Your task to perform on an android device: turn on javascript in the chrome app Image 0: 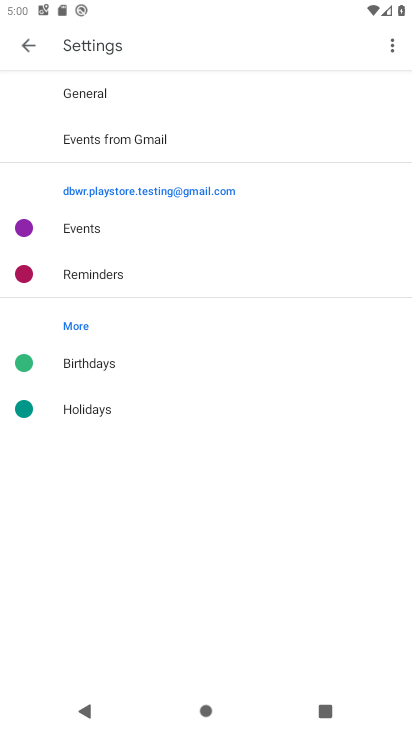
Step 0: press home button
Your task to perform on an android device: turn on javascript in the chrome app Image 1: 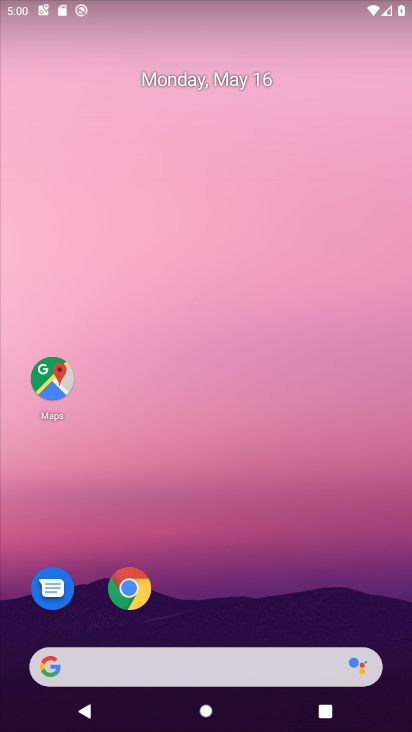
Step 1: click (132, 591)
Your task to perform on an android device: turn on javascript in the chrome app Image 2: 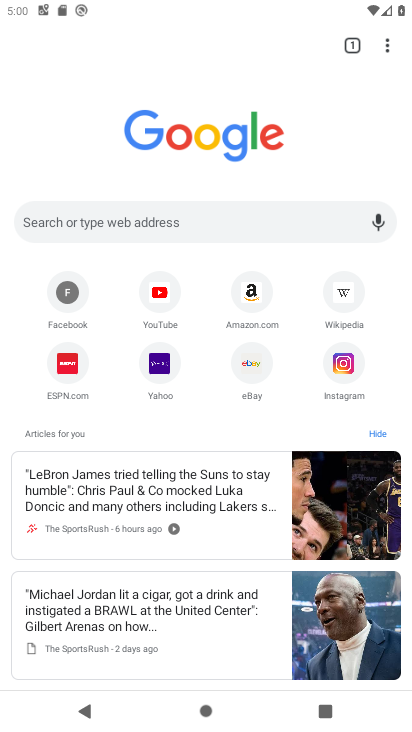
Step 2: click (383, 38)
Your task to perform on an android device: turn on javascript in the chrome app Image 3: 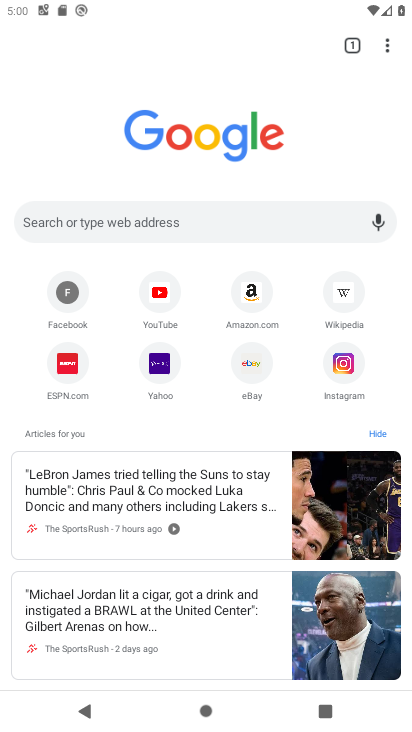
Step 3: click (380, 43)
Your task to perform on an android device: turn on javascript in the chrome app Image 4: 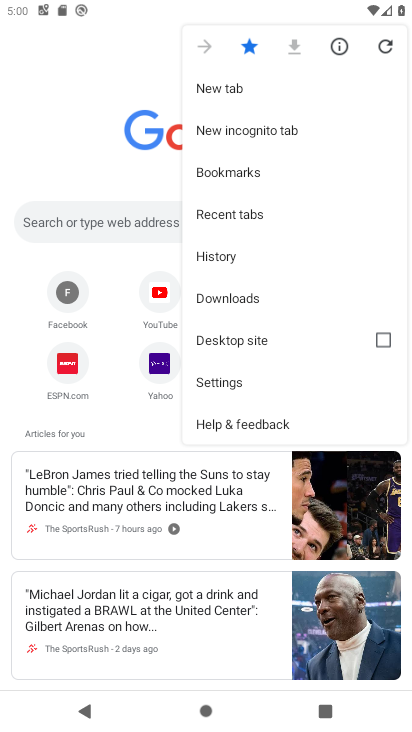
Step 4: click (244, 373)
Your task to perform on an android device: turn on javascript in the chrome app Image 5: 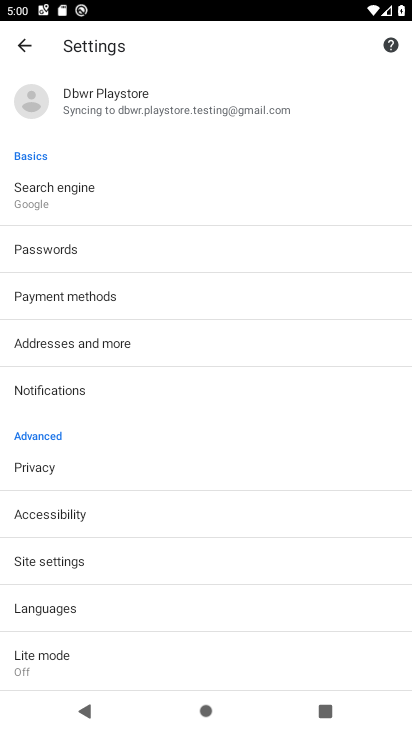
Step 5: click (107, 563)
Your task to perform on an android device: turn on javascript in the chrome app Image 6: 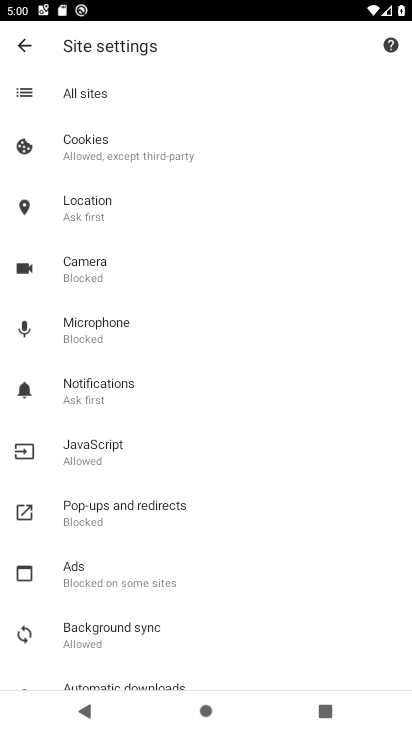
Step 6: click (126, 446)
Your task to perform on an android device: turn on javascript in the chrome app Image 7: 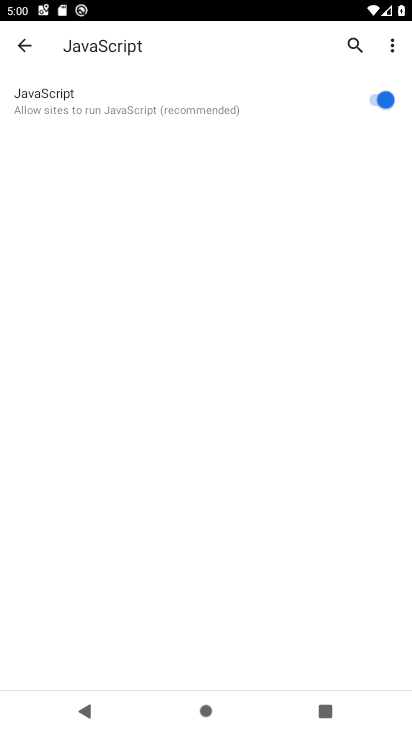
Step 7: task complete